Your task to perform on an android device: Search for seafood restaurants on Google Maps Image 0: 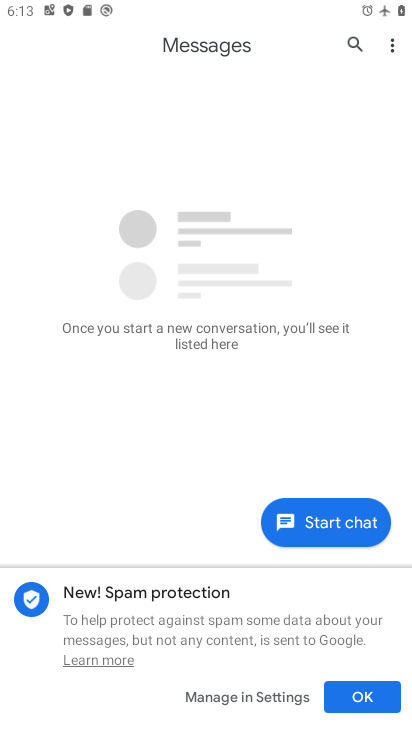
Step 0: press home button
Your task to perform on an android device: Search for seafood restaurants on Google Maps Image 1: 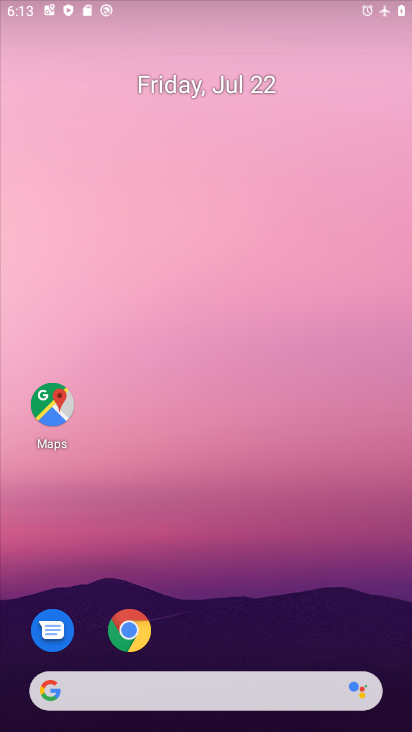
Step 1: drag from (256, 665) to (322, 15)
Your task to perform on an android device: Search for seafood restaurants on Google Maps Image 2: 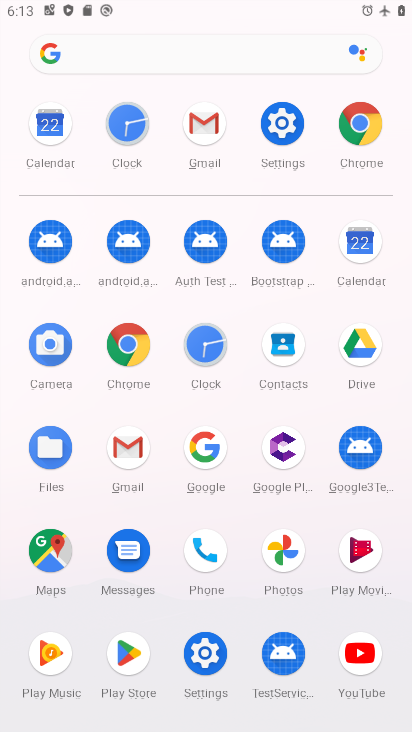
Step 2: click (59, 556)
Your task to perform on an android device: Search for seafood restaurants on Google Maps Image 3: 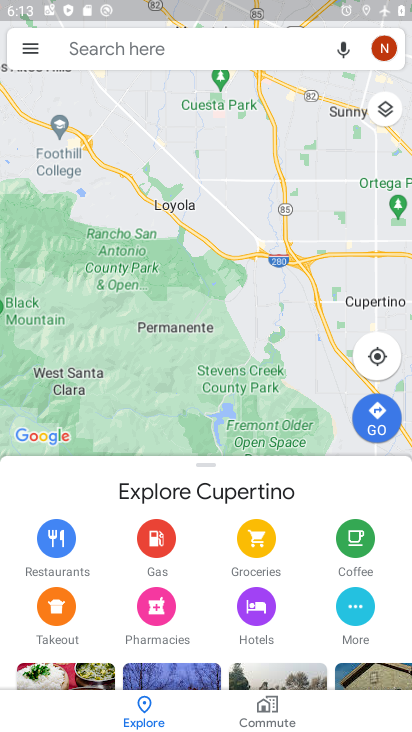
Step 3: click (182, 54)
Your task to perform on an android device: Search for seafood restaurants on Google Maps Image 4: 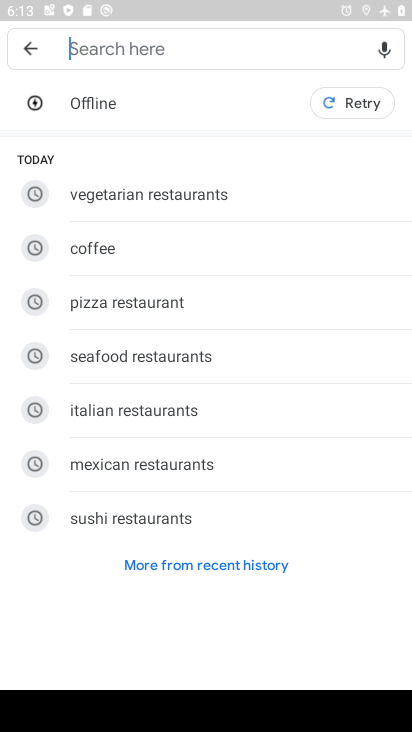
Step 4: click (115, 357)
Your task to perform on an android device: Search for seafood restaurants on Google Maps Image 5: 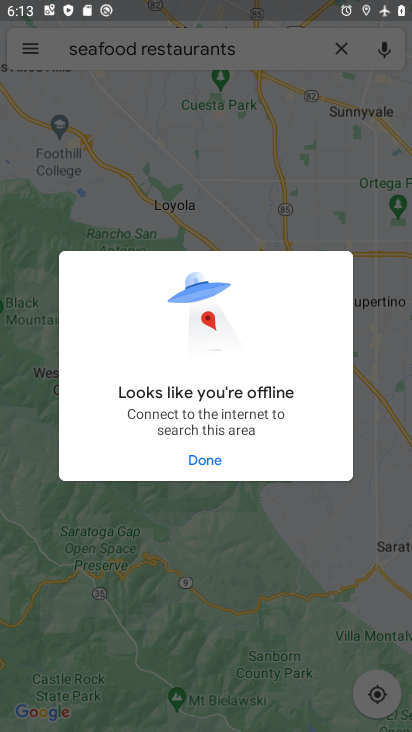
Step 5: task complete